Your task to perform on an android device: turn on data saver in the chrome app Image 0: 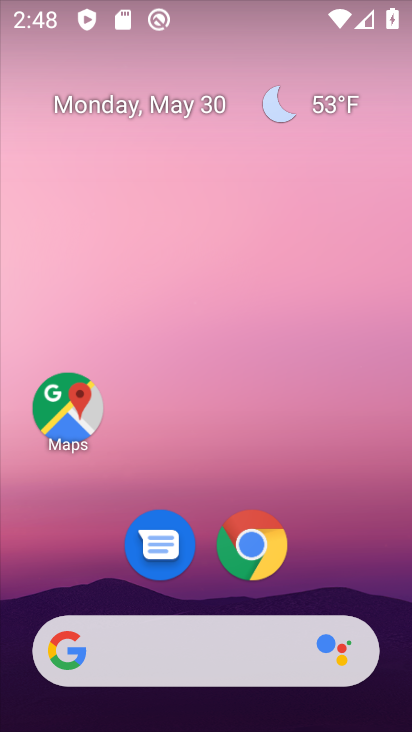
Step 0: click (257, 565)
Your task to perform on an android device: turn on data saver in the chrome app Image 1: 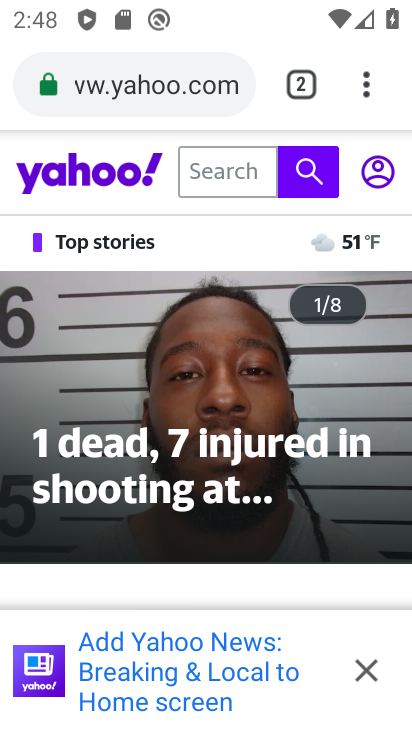
Step 1: click (366, 84)
Your task to perform on an android device: turn on data saver in the chrome app Image 2: 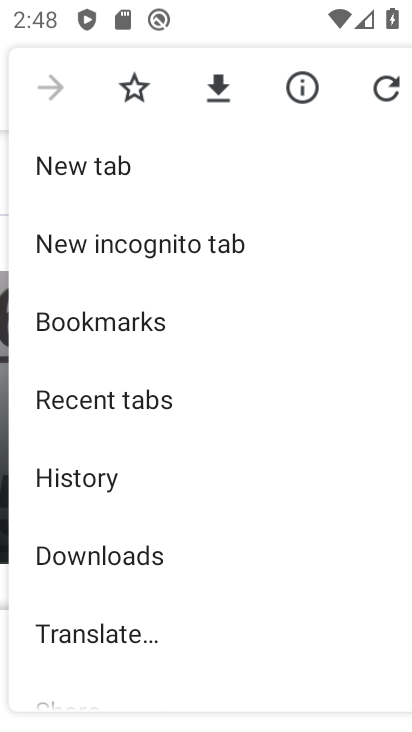
Step 2: drag from (254, 619) to (208, 46)
Your task to perform on an android device: turn on data saver in the chrome app Image 3: 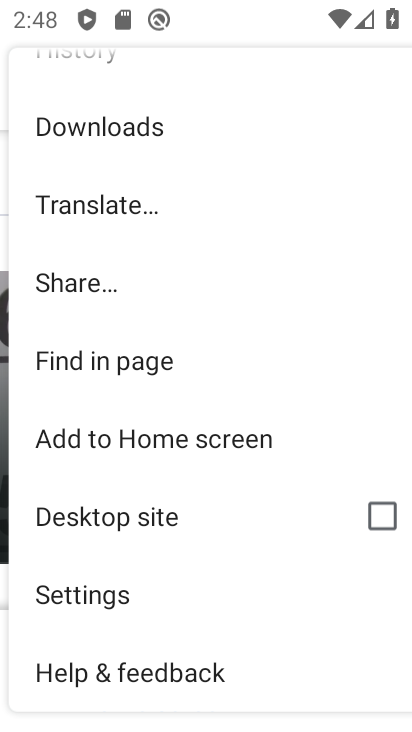
Step 3: click (68, 600)
Your task to perform on an android device: turn on data saver in the chrome app Image 4: 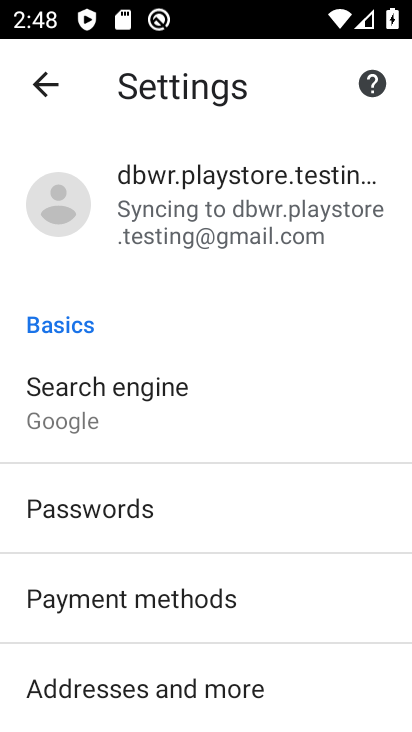
Step 4: drag from (110, 673) to (156, 44)
Your task to perform on an android device: turn on data saver in the chrome app Image 5: 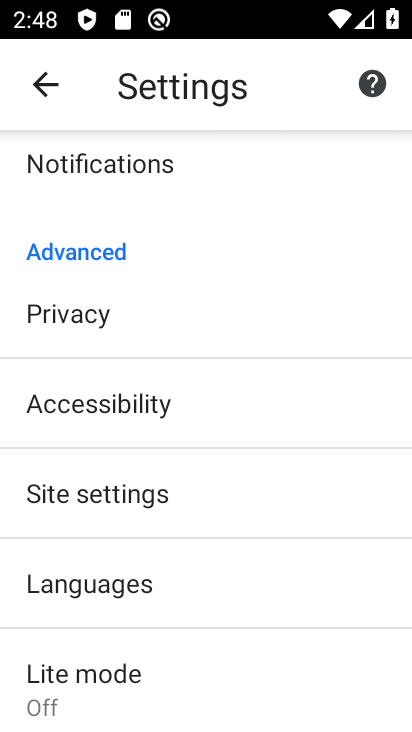
Step 5: click (136, 671)
Your task to perform on an android device: turn on data saver in the chrome app Image 6: 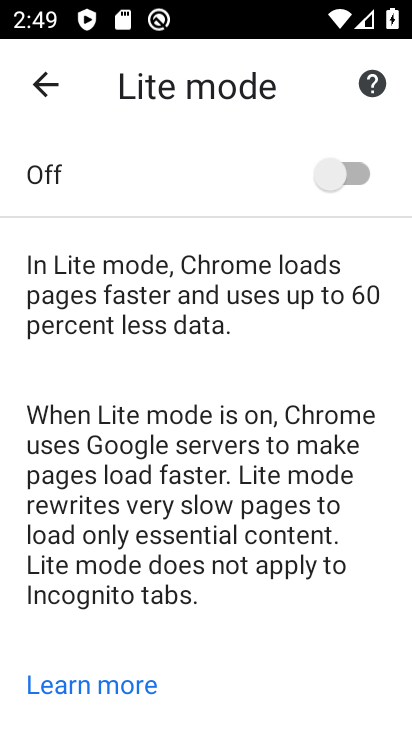
Step 6: click (369, 161)
Your task to perform on an android device: turn on data saver in the chrome app Image 7: 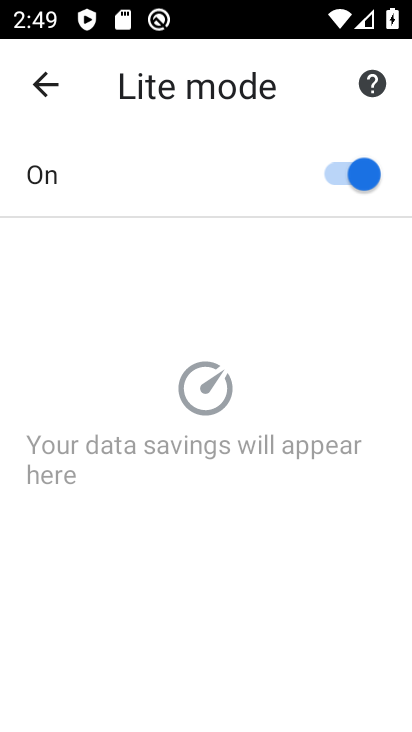
Step 7: task complete